Your task to perform on an android device: delete browsing data in the chrome app Image 0: 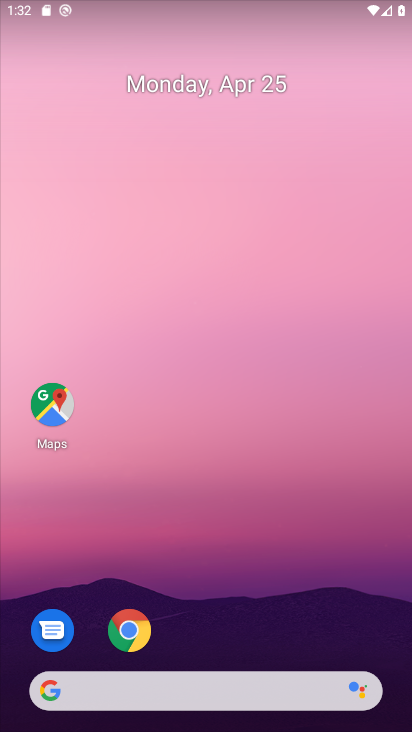
Step 0: drag from (215, 661) to (168, 61)
Your task to perform on an android device: delete browsing data in the chrome app Image 1: 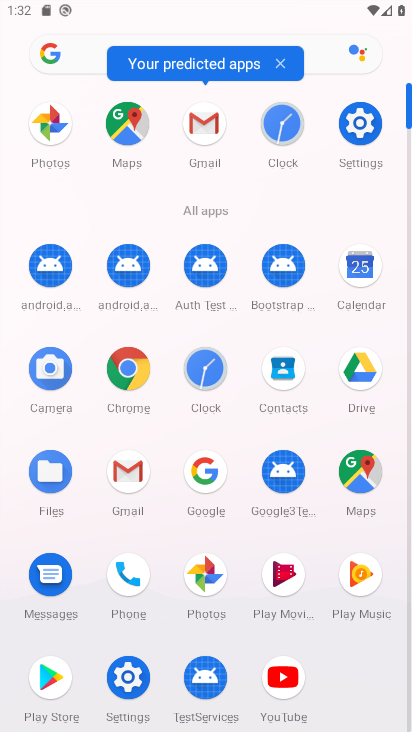
Step 1: click (141, 358)
Your task to perform on an android device: delete browsing data in the chrome app Image 2: 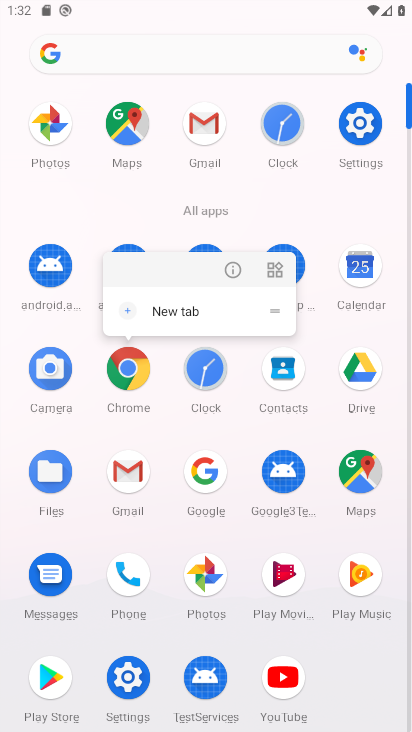
Step 2: click (141, 360)
Your task to perform on an android device: delete browsing data in the chrome app Image 3: 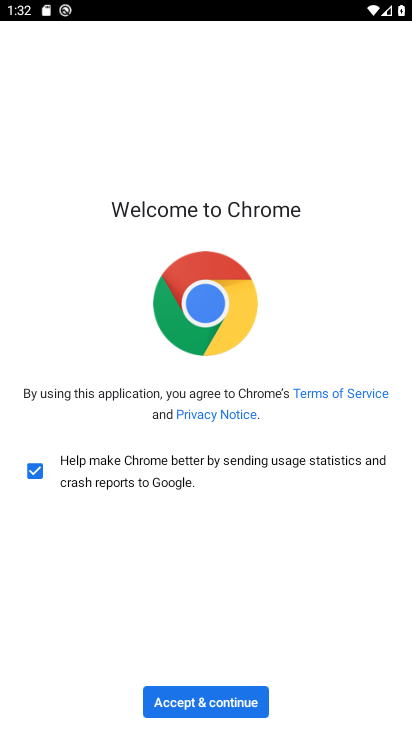
Step 3: click (162, 690)
Your task to perform on an android device: delete browsing data in the chrome app Image 4: 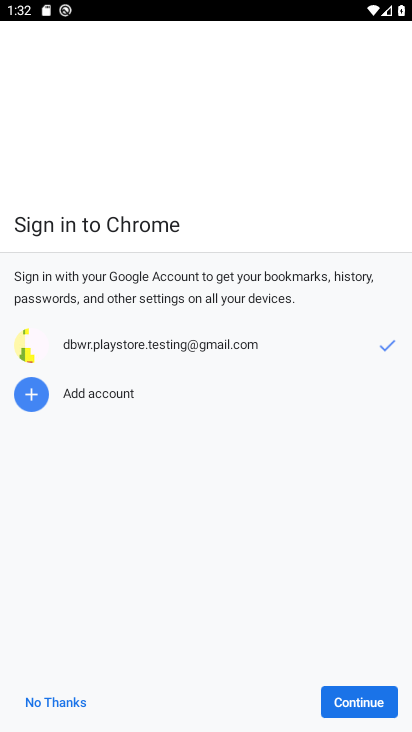
Step 4: click (361, 708)
Your task to perform on an android device: delete browsing data in the chrome app Image 5: 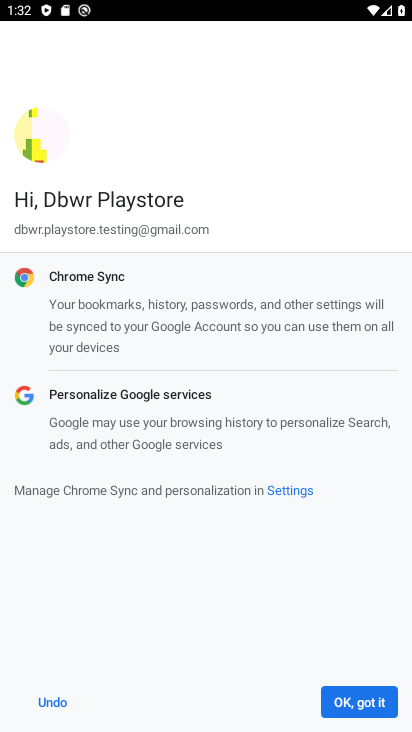
Step 5: click (379, 694)
Your task to perform on an android device: delete browsing data in the chrome app Image 6: 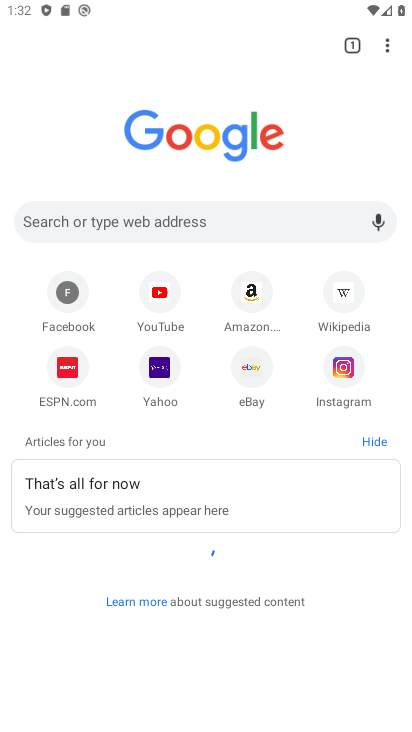
Step 6: task complete